Your task to perform on an android device: make emails show in primary in the gmail app Image 0: 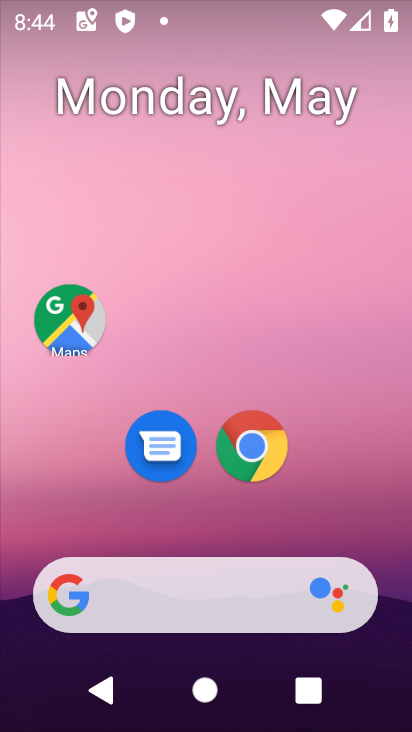
Step 0: press home button
Your task to perform on an android device: make emails show in primary in the gmail app Image 1: 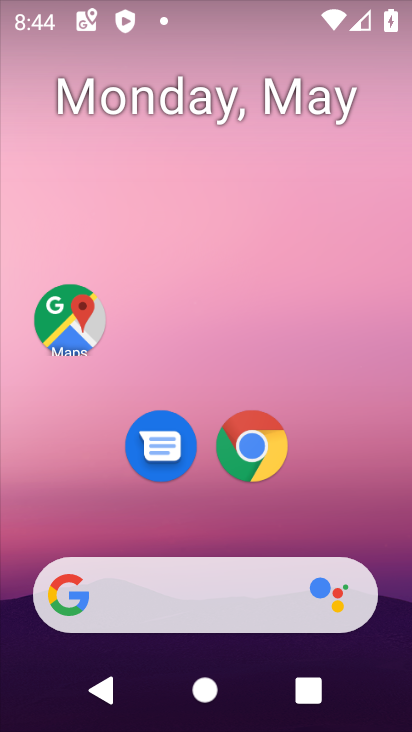
Step 1: drag from (210, 531) to (240, 93)
Your task to perform on an android device: make emails show in primary in the gmail app Image 2: 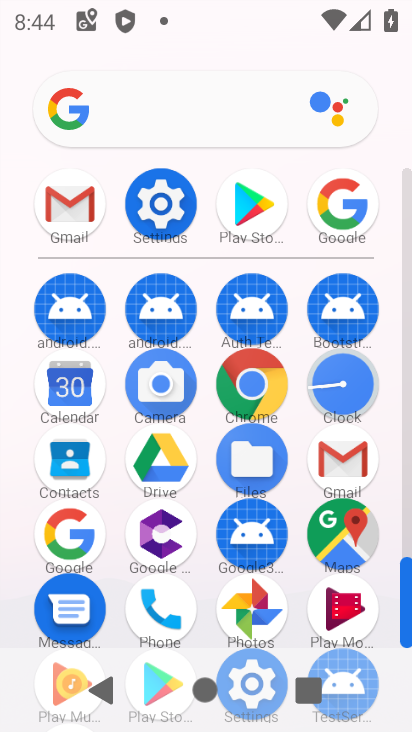
Step 2: click (64, 195)
Your task to perform on an android device: make emails show in primary in the gmail app Image 3: 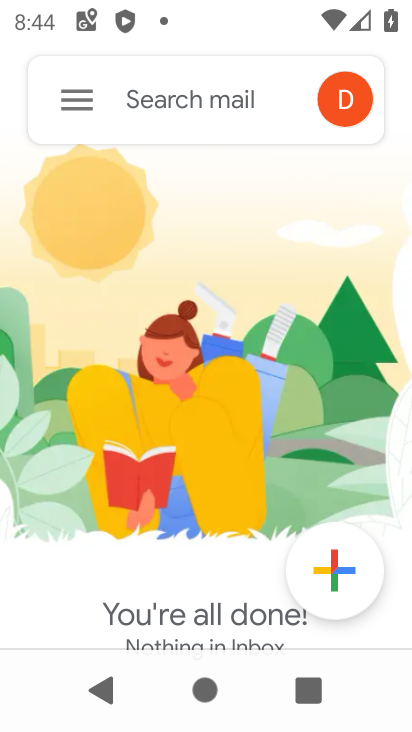
Step 3: click (71, 101)
Your task to perform on an android device: make emails show in primary in the gmail app Image 4: 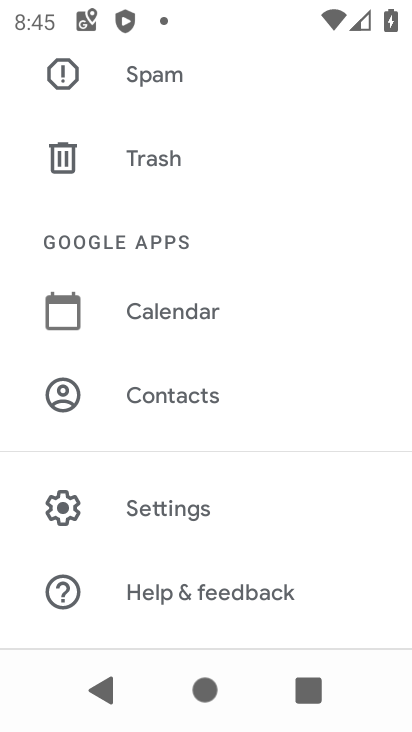
Step 4: click (132, 501)
Your task to perform on an android device: make emails show in primary in the gmail app Image 5: 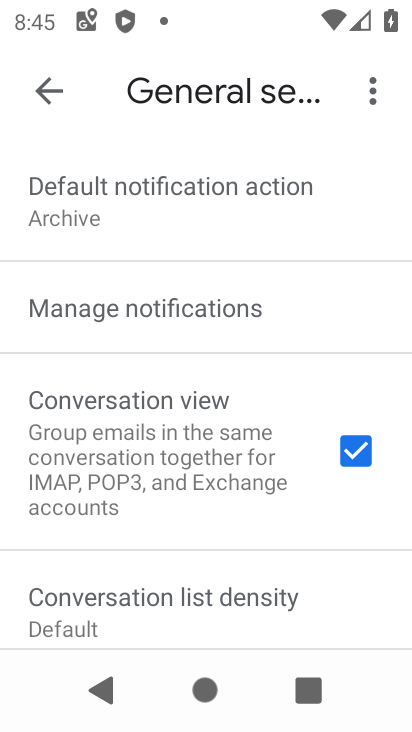
Step 5: click (58, 94)
Your task to perform on an android device: make emails show in primary in the gmail app Image 6: 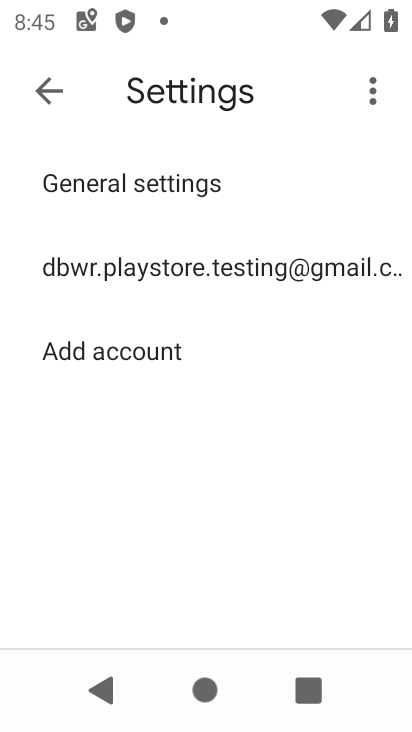
Step 6: click (199, 268)
Your task to perform on an android device: make emails show in primary in the gmail app Image 7: 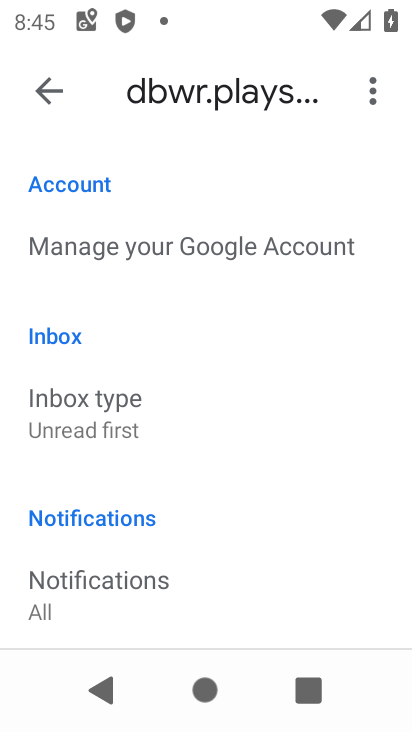
Step 7: click (169, 418)
Your task to perform on an android device: make emails show in primary in the gmail app Image 8: 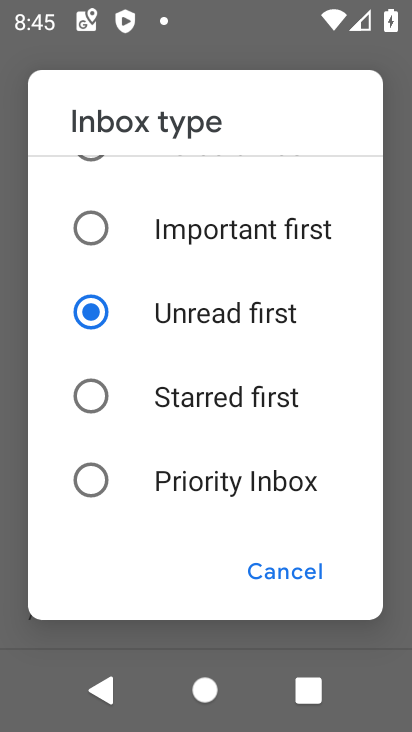
Step 8: drag from (143, 255) to (138, 550)
Your task to perform on an android device: make emails show in primary in the gmail app Image 9: 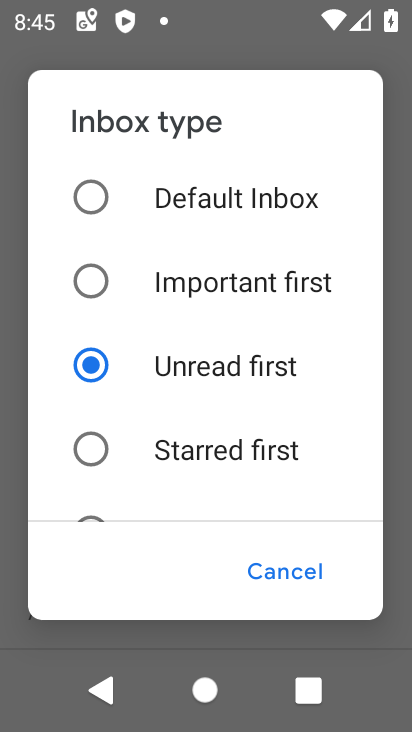
Step 9: click (102, 190)
Your task to perform on an android device: make emails show in primary in the gmail app Image 10: 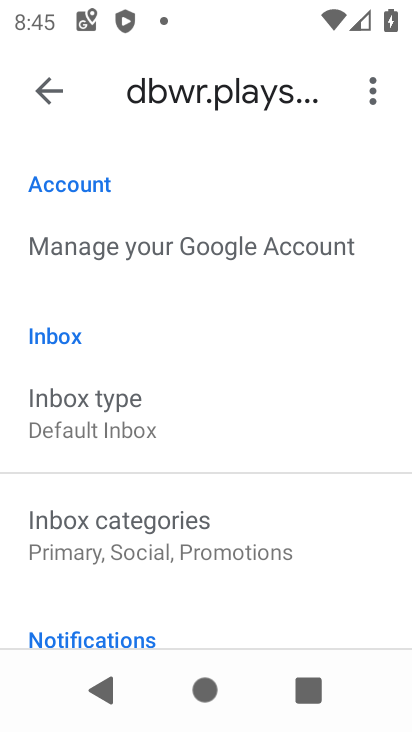
Step 10: task complete